Your task to perform on an android device: Check the weather Image 0: 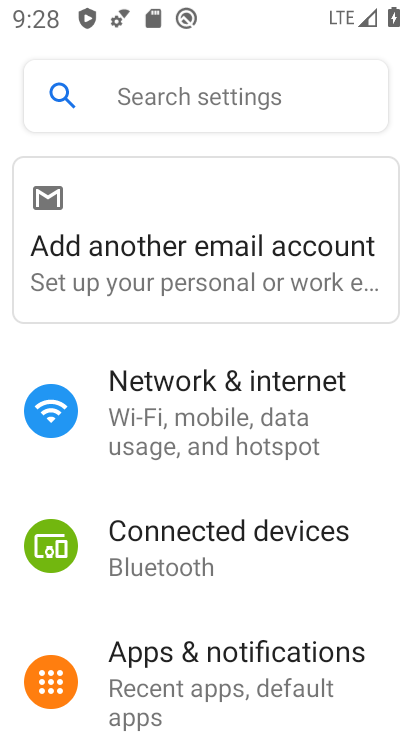
Step 0: press home button
Your task to perform on an android device: Check the weather Image 1: 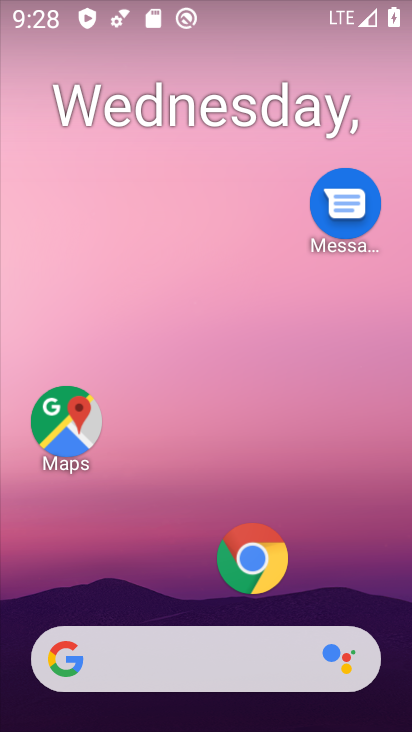
Step 1: drag from (33, 289) to (342, 169)
Your task to perform on an android device: Check the weather Image 2: 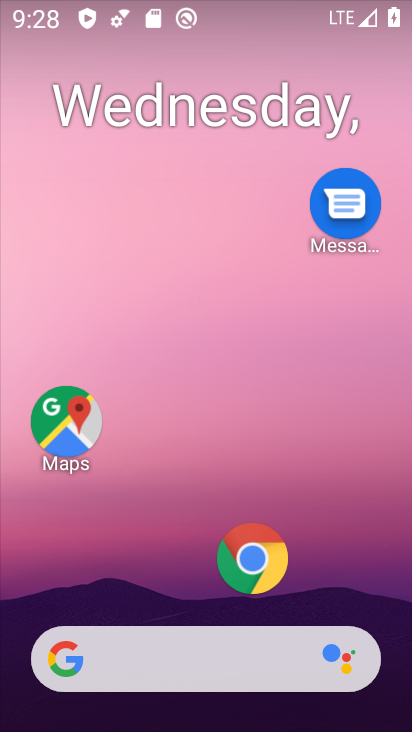
Step 2: drag from (14, 308) to (381, 273)
Your task to perform on an android device: Check the weather Image 3: 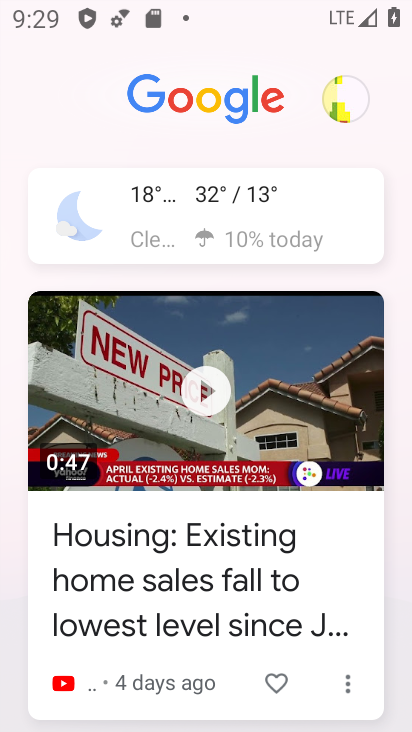
Step 3: click (79, 207)
Your task to perform on an android device: Check the weather Image 4: 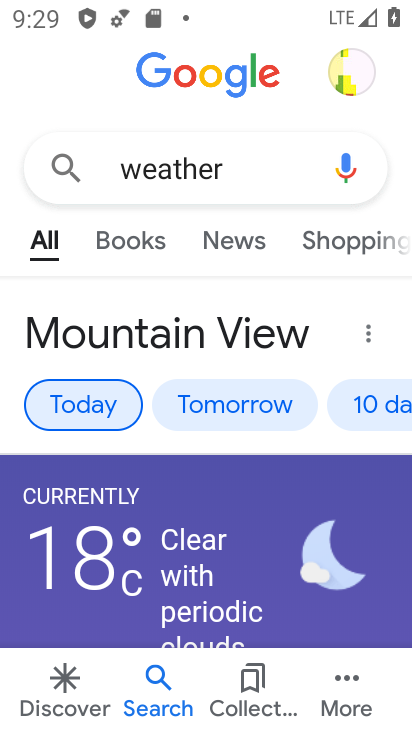
Step 4: task complete